Your task to perform on an android device: What's the weather going to be tomorrow? Image 0: 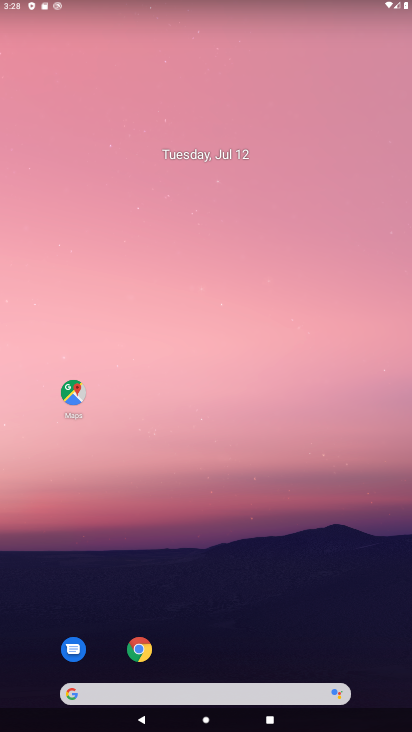
Step 0: press home button
Your task to perform on an android device: What's the weather going to be tomorrow? Image 1: 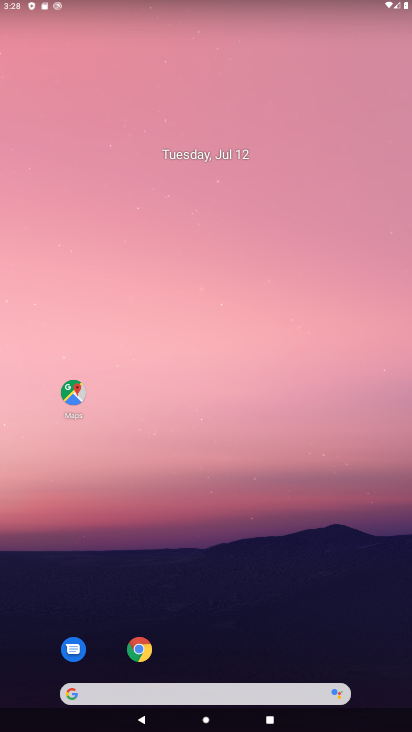
Step 1: drag from (211, 655) to (274, 0)
Your task to perform on an android device: What's the weather going to be tomorrow? Image 2: 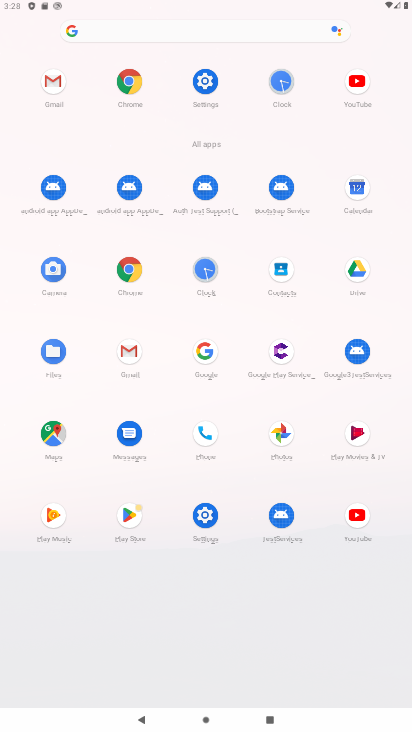
Step 2: press home button
Your task to perform on an android device: What's the weather going to be tomorrow? Image 3: 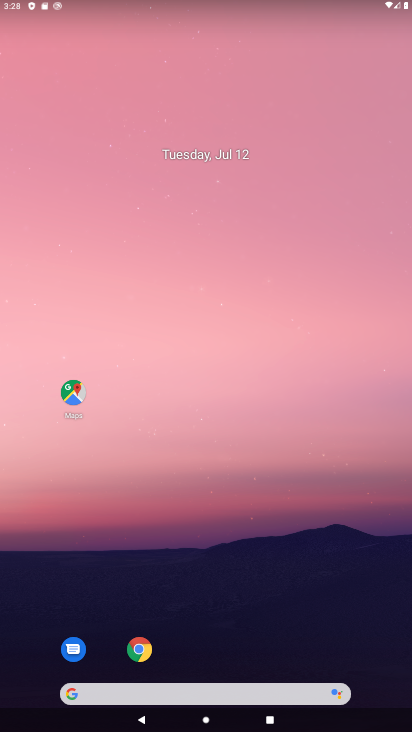
Step 3: click (196, 691)
Your task to perform on an android device: What's the weather going to be tomorrow? Image 4: 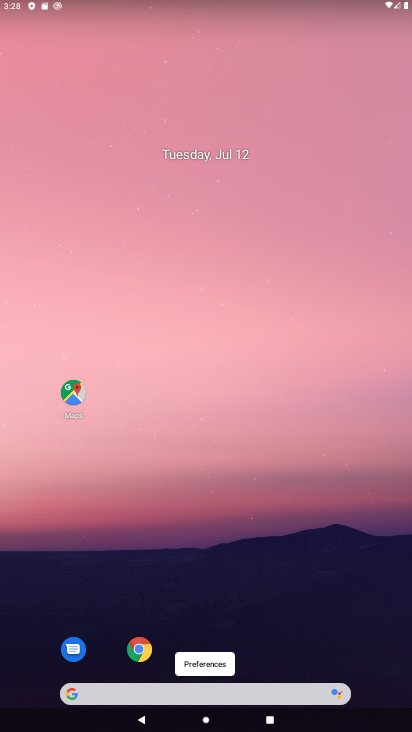
Step 4: click (195, 686)
Your task to perform on an android device: What's the weather going to be tomorrow? Image 5: 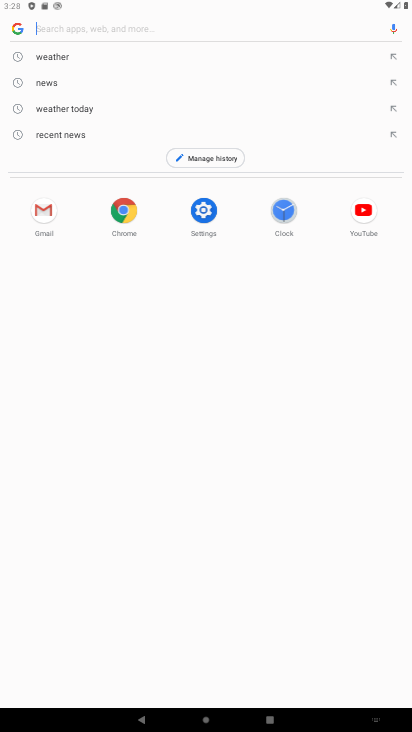
Step 5: click (77, 51)
Your task to perform on an android device: What's the weather going to be tomorrow? Image 6: 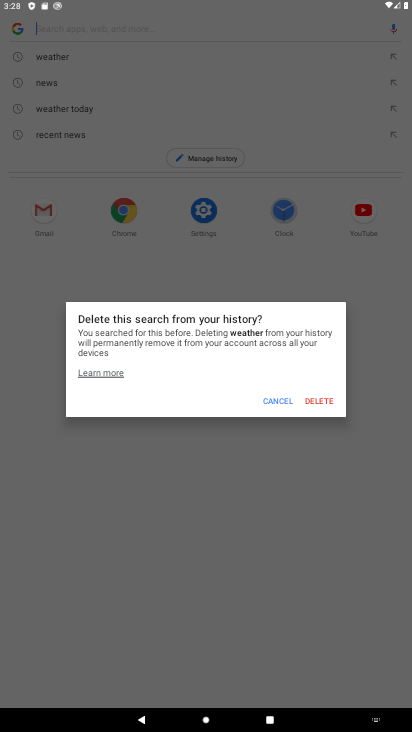
Step 6: click (274, 400)
Your task to perform on an android device: What's the weather going to be tomorrow? Image 7: 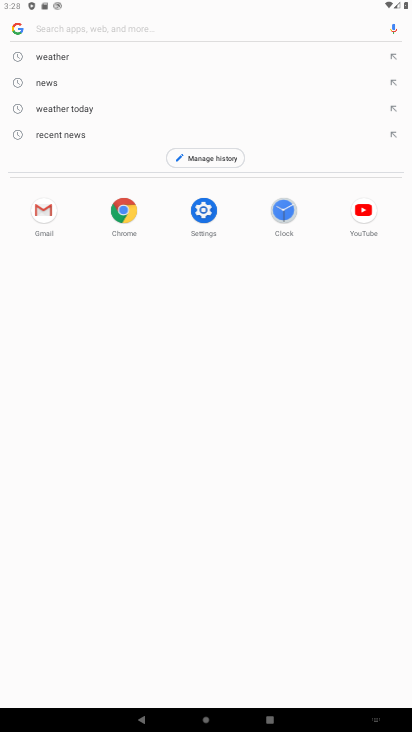
Step 7: click (66, 52)
Your task to perform on an android device: What's the weather going to be tomorrow? Image 8: 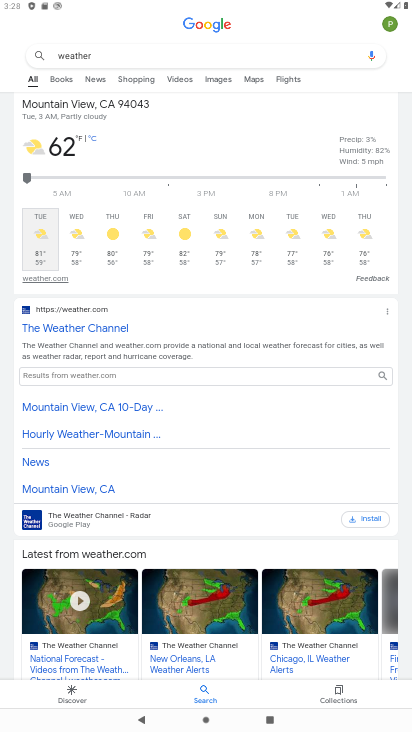
Step 8: drag from (210, 516) to (218, 253)
Your task to perform on an android device: What's the weather going to be tomorrow? Image 9: 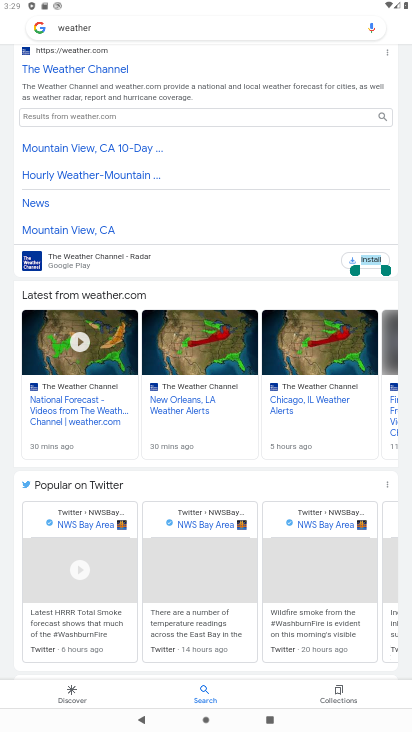
Step 9: drag from (209, 189) to (211, 638)
Your task to perform on an android device: What's the weather going to be tomorrow? Image 10: 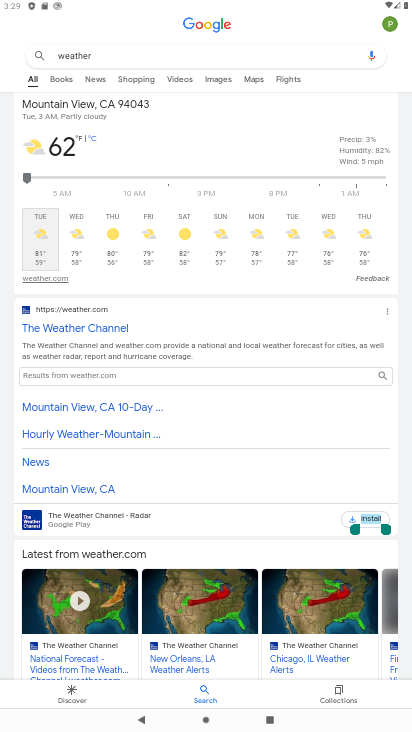
Step 10: click (72, 216)
Your task to perform on an android device: What's the weather going to be tomorrow? Image 11: 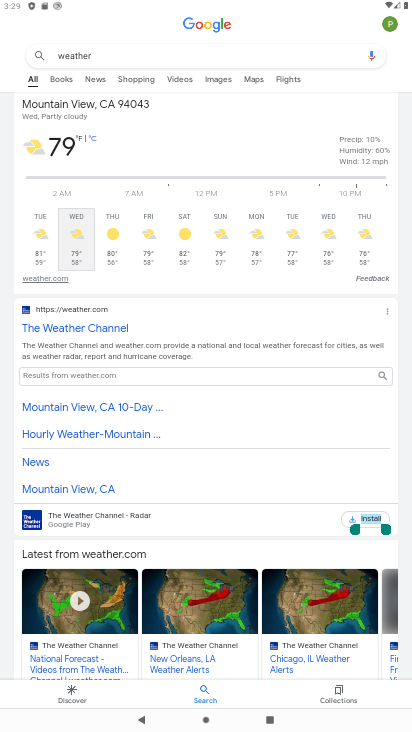
Step 11: task complete